Your task to perform on an android device: read, delete, or share a saved page in the chrome app Image 0: 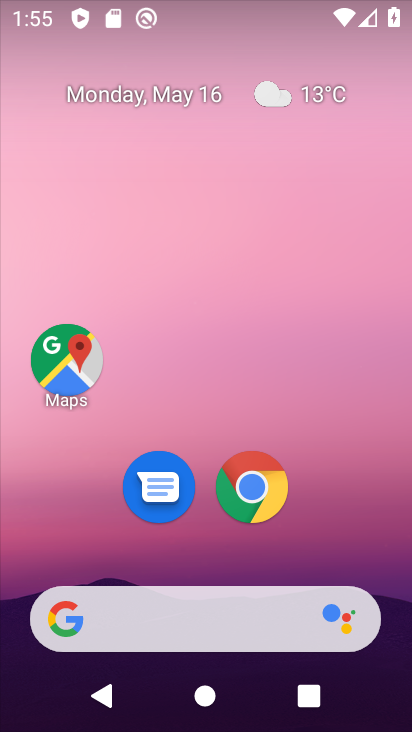
Step 0: drag from (269, 541) to (150, 110)
Your task to perform on an android device: read, delete, or share a saved page in the chrome app Image 1: 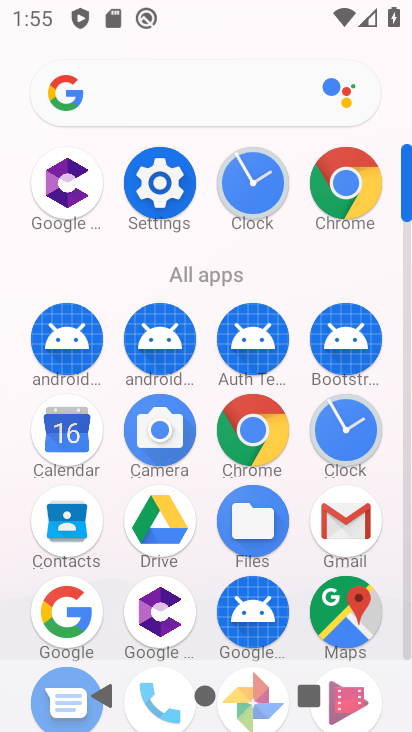
Step 1: click (357, 197)
Your task to perform on an android device: read, delete, or share a saved page in the chrome app Image 2: 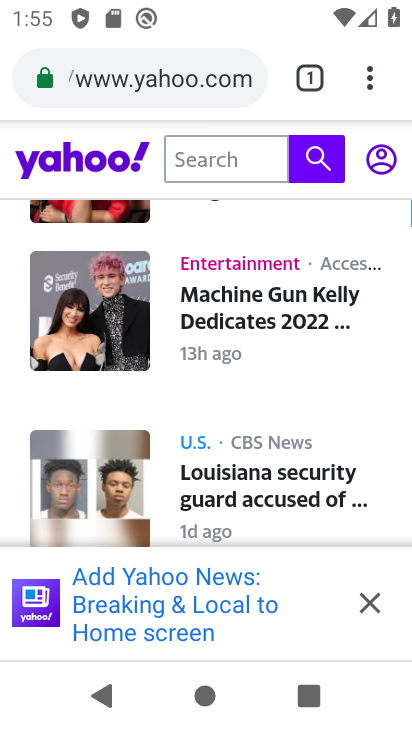
Step 2: click (372, 76)
Your task to perform on an android device: read, delete, or share a saved page in the chrome app Image 3: 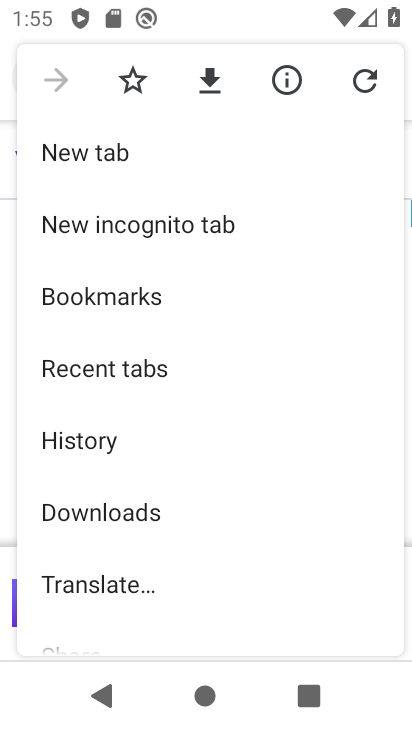
Step 3: click (125, 299)
Your task to perform on an android device: read, delete, or share a saved page in the chrome app Image 4: 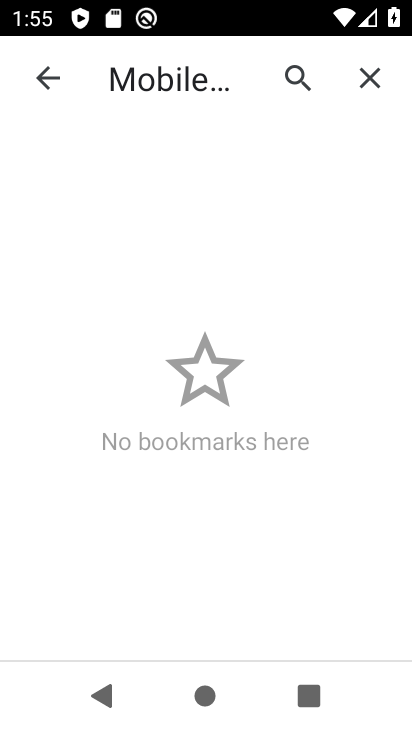
Step 4: task complete